Your task to perform on an android device: Open Google Chrome Image 0: 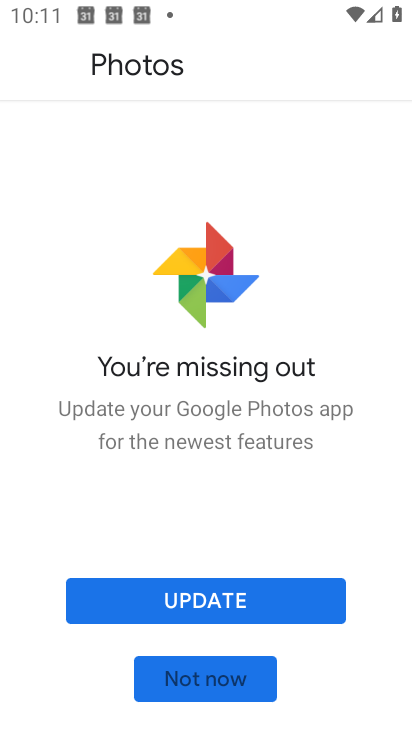
Step 0: press home button
Your task to perform on an android device: Open Google Chrome Image 1: 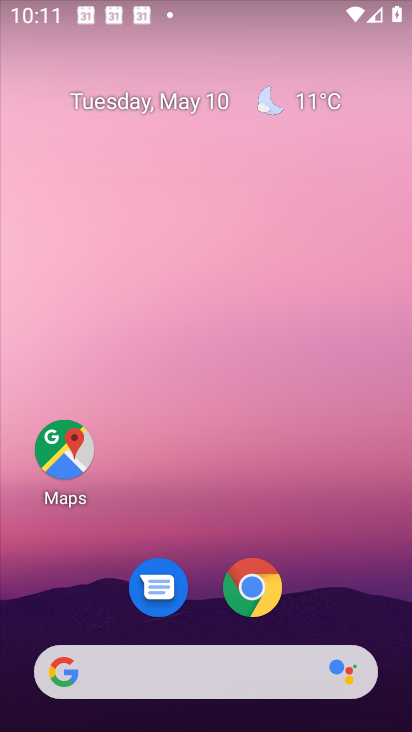
Step 1: drag from (398, 592) to (365, 144)
Your task to perform on an android device: Open Google Chrome Image 2: 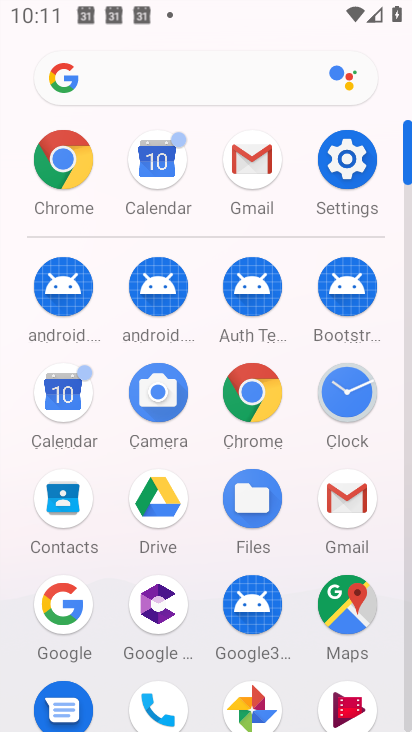
Step 2: click (226, 401)
Your task to perform on an android device: Open Google Chrome Image 3: 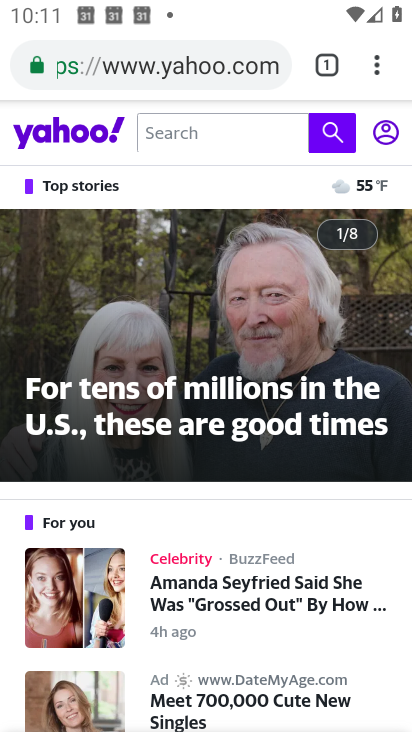
Step 3: task complete